Your task to perform on an android device: open a bookmark in the chrome app Image 0: 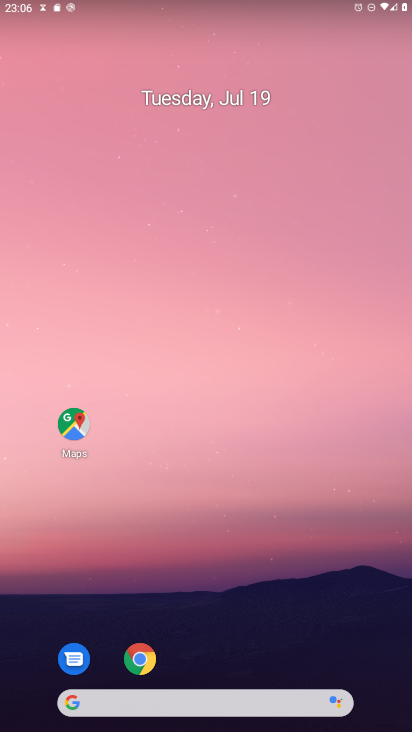
Step 0: drag from (289, 622) to (258, 87)
Your task to perform on an android device: open a bookmark in the chrome app Image 1: 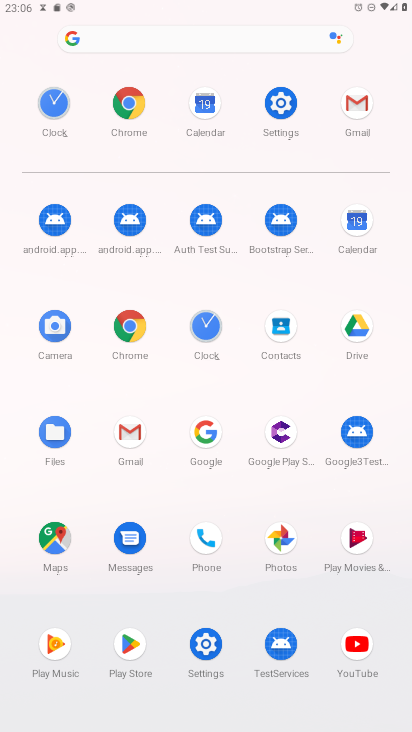
Step 1: click (128, 96)
Your task to perform on an android device: open a bookmark in the chrome app Image 2: 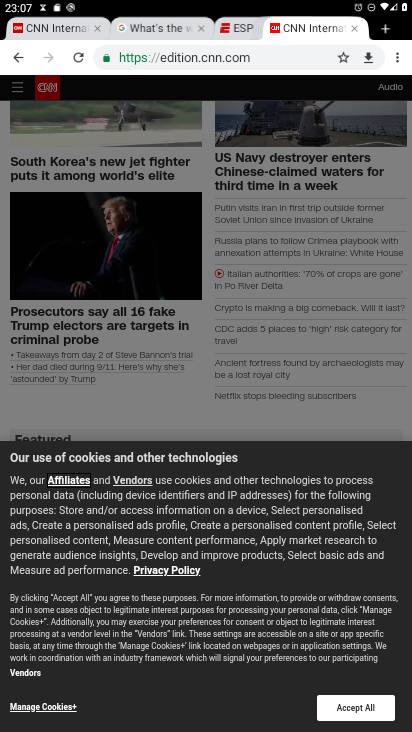
Step 2: click (399, 57)
Your task to perform on an android device: open a bookmark in the chrome app Image 3: 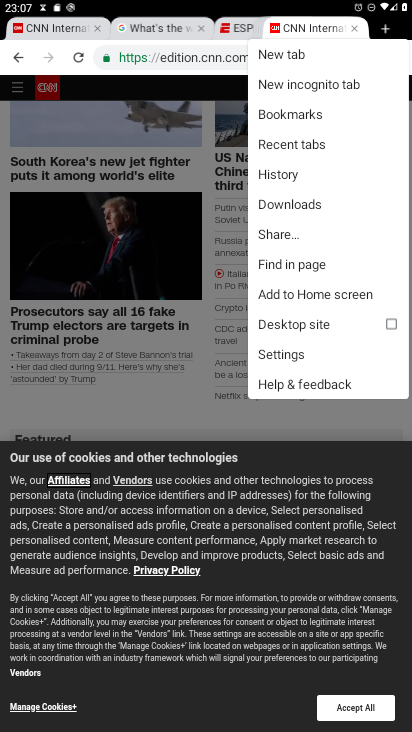
Step 3: click (294, 114)
Your task to perform on an android device: open a bookmark in the chrome app Image 4: 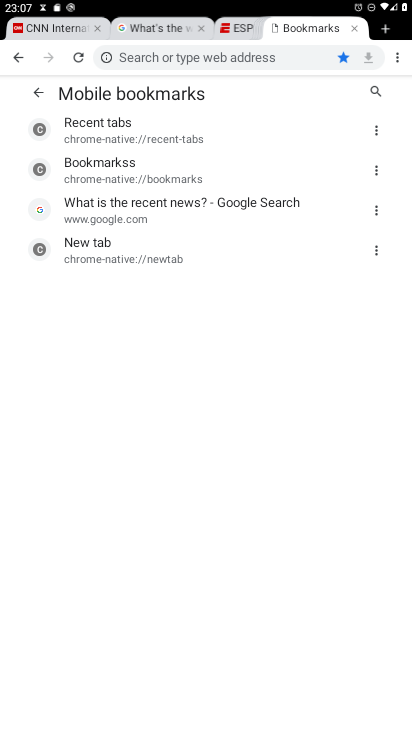
Step 4: task complete